Your task to perform on an android device: Search for vegetarian restaurants on Maps Image 0: 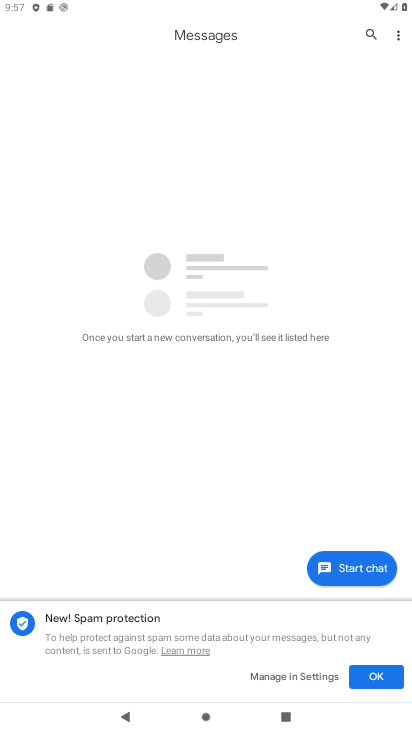
Step 0: press home button
Your task to perform on an android device: Search for vegetarian restaurants on Maps Image 1: 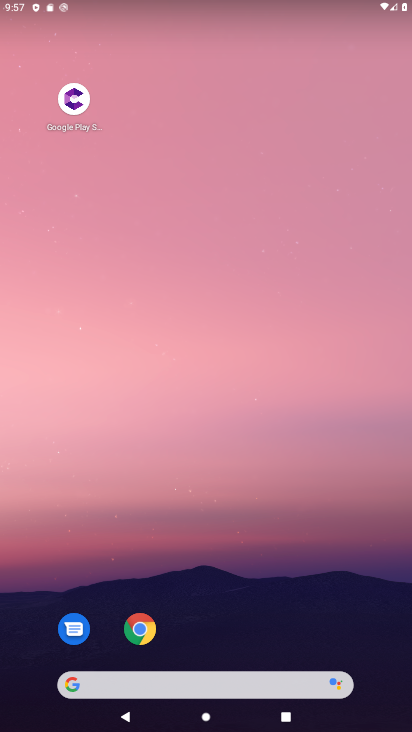
Step 1: drag from (320, 637) to (292, 192)
Your task to perform on an android device: Search for vegetarian restaurants on Maps Image 2: 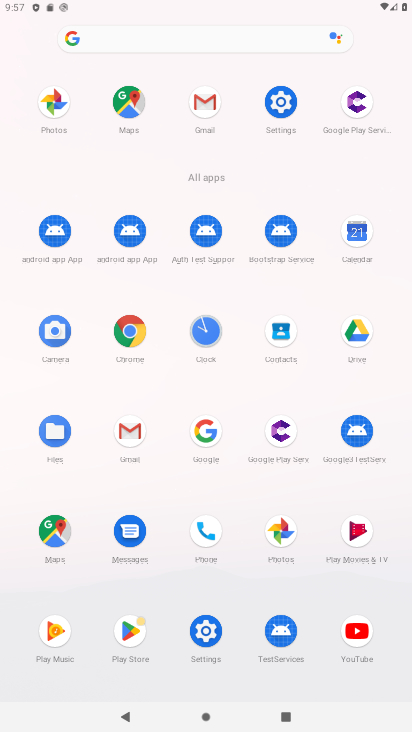
Step 2: click (139, 89)
Your task to perform on an android device: Search for vegetarian restaurants on Maps Image 3: 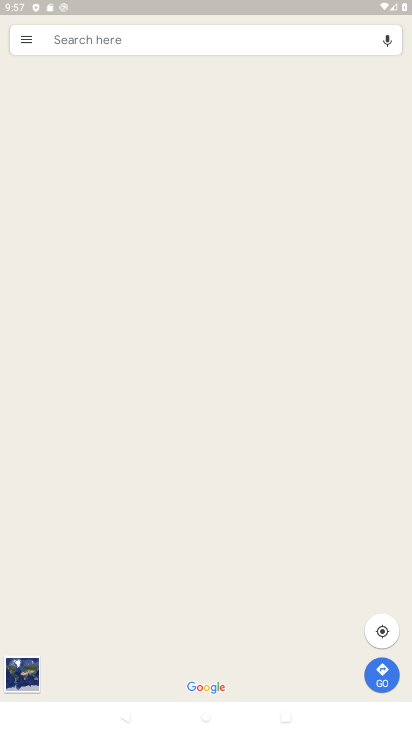
Step 3: click (252, 38)
Your task to perform on an android device: Search for vegetarian restaurants on Maps Image 4: 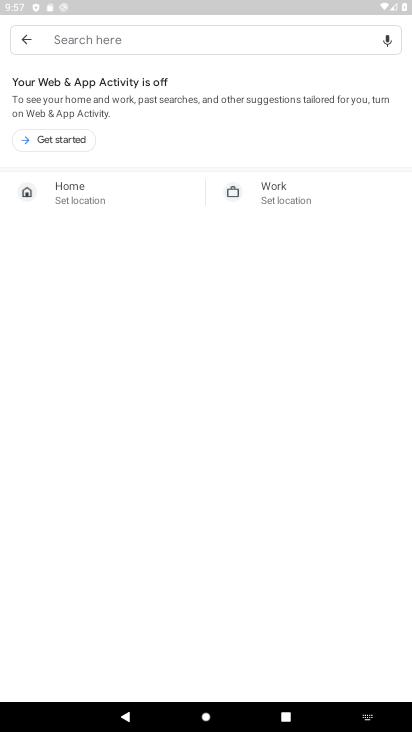
Step 4: click (278, 35)
Your task to perform on an android device: Search for vegetarian restaurants on Maps Image 5: 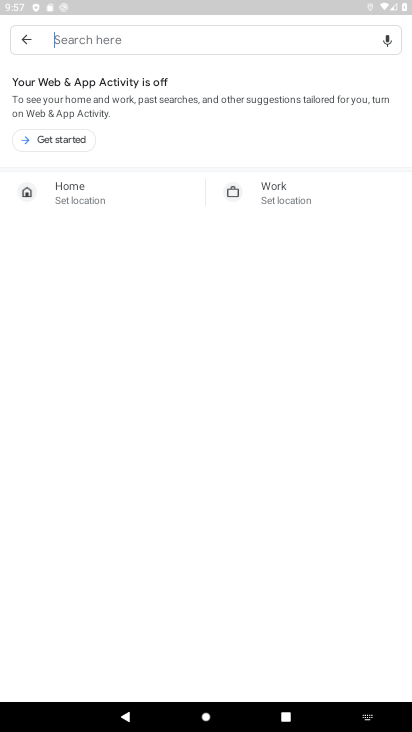
Step 5: type " vegetarian restaurants"
Your task to perform on an android device: Search for vegetarian restaurants on Maps Image 6: 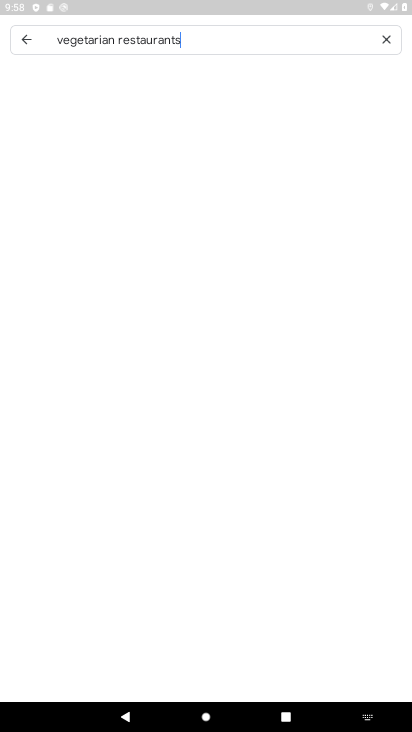
Step 6: type ""
Your task to perform on an android device: Search for vegetarian restaurants on Maps Image 7: 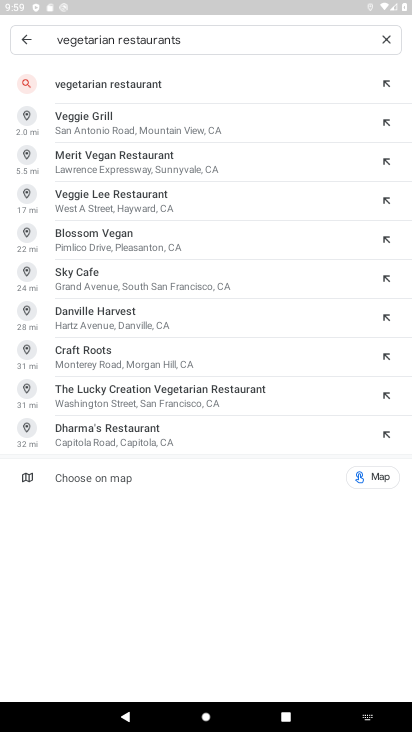
Step 7: click (139, 81)
Your task to perform on an android device: Search for vegetarian restaurants on Maps Image 8: 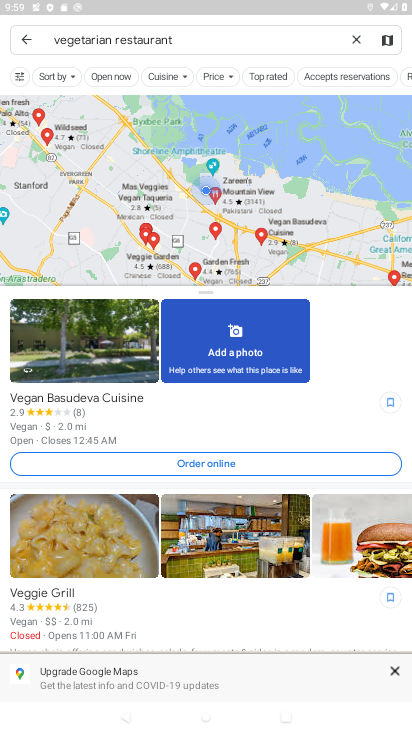
Step 8: task complete